Your task to perform on an android device: Open the calendar and show me this week's events? Image 0: 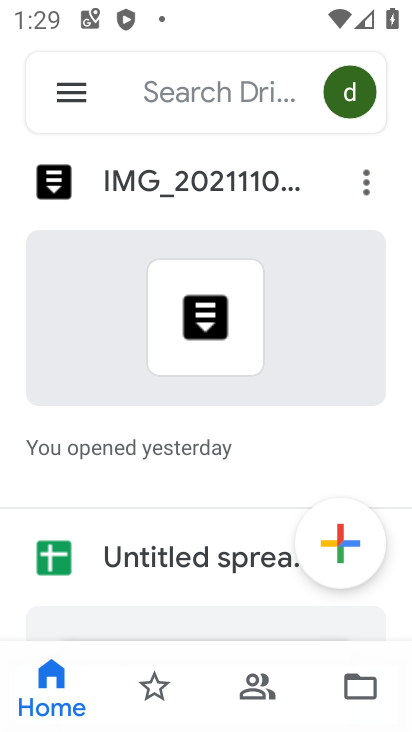
Step 0: press home button
Your task to perform on an android device: Open the calendar and show me this week's events? Image 1: 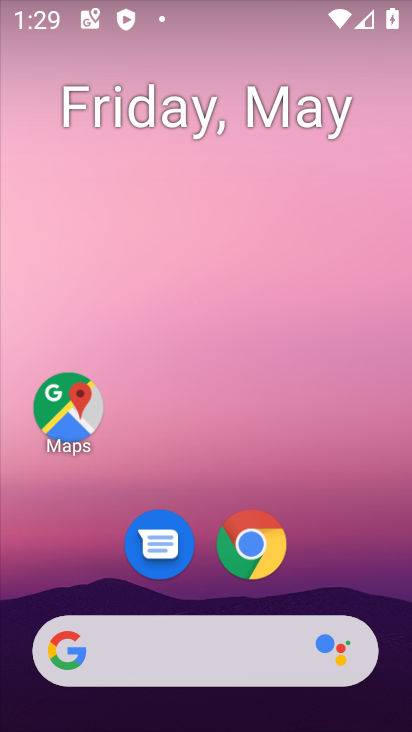
Step 1: drag from (236, 500) to (178, 161)
Your task to perform on an android device: Open the calendar and show me this week's events? Image 2: 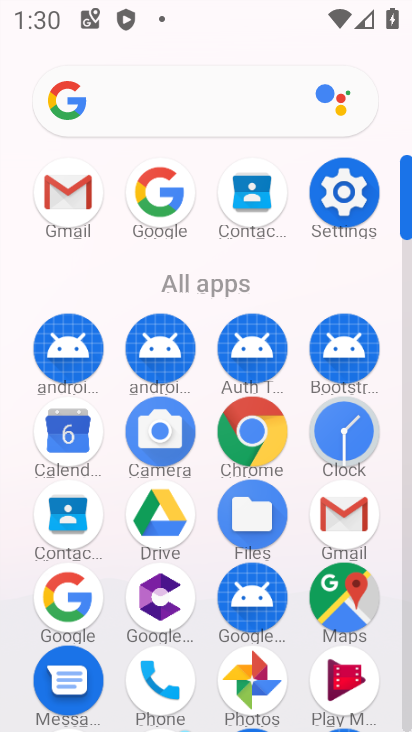
Step 2: click (75, 456)
Your task to perform on an android device: Open the calendar and show me this week's events? Image 3: 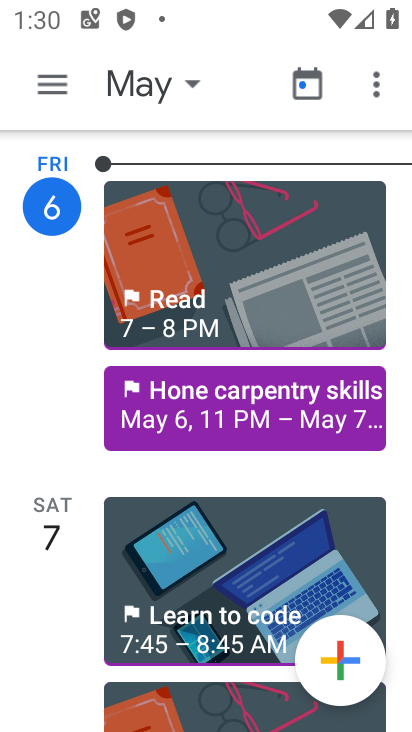
Step 3: click (48, 89)
Your task to perform on an android device: Open the calendar and show me this week's events? Image 4: 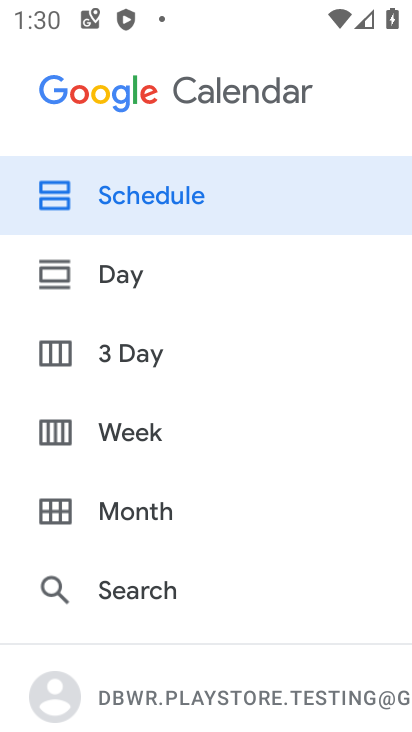
Step 4: click (146, 439)
Your task to perform on an android device: Open the calendar and show me this week's events? Image 5: 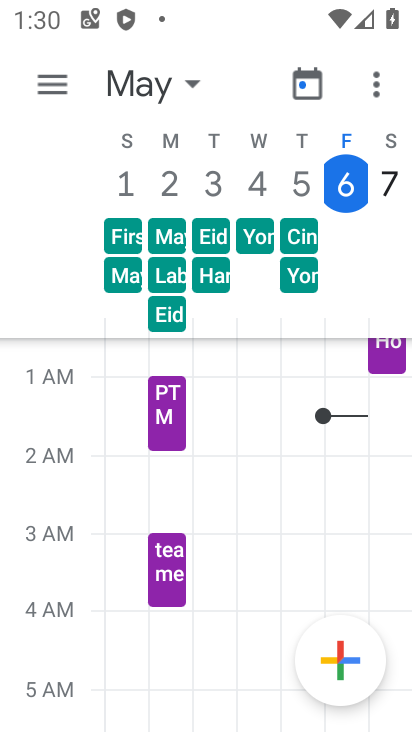
Step 5: click (177, 409)
Your task to perform on an android device: Open the calendar and show me this week's events? Image 6: 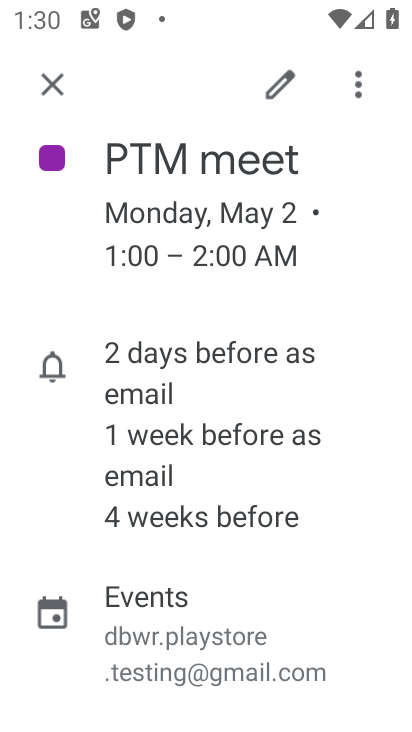
Step 6: task complete